Your task to perform on an android device: turn off picture-in-picture Image 0: 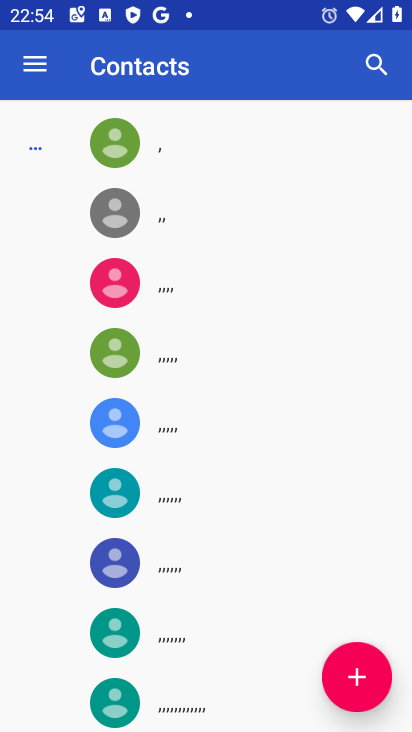
Step 0: press home button
Your task to perform on an android device: turn off picture-in-picture Image 1: 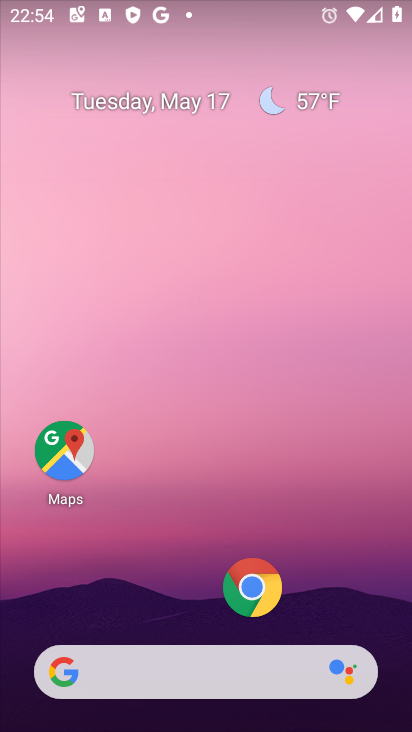
Step 1: drag from (214, 578) to (225, 140)
Your task to perform on an android device: turn off picture-in-picture Image 2: 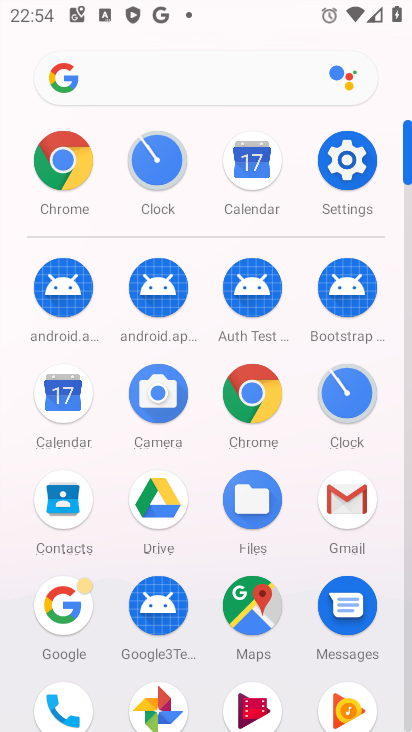
Step 2: click (347, 176)
Your task to perform on an android device: turn off picture-in-picture Image 3: 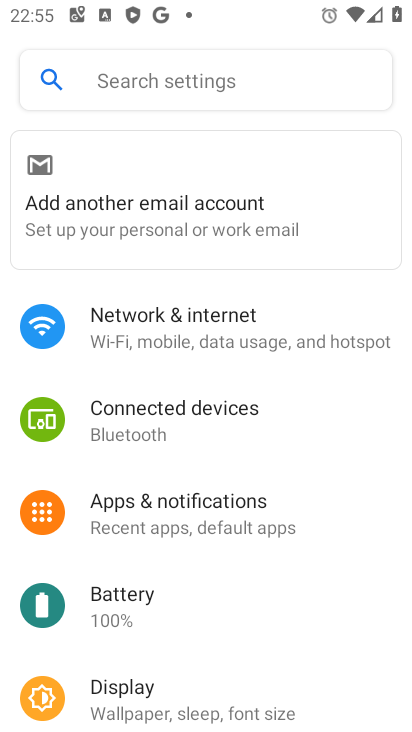
Step 3: click (255, 503)
Your task to perform on an android device: turn off picture-in-picture Image 4: 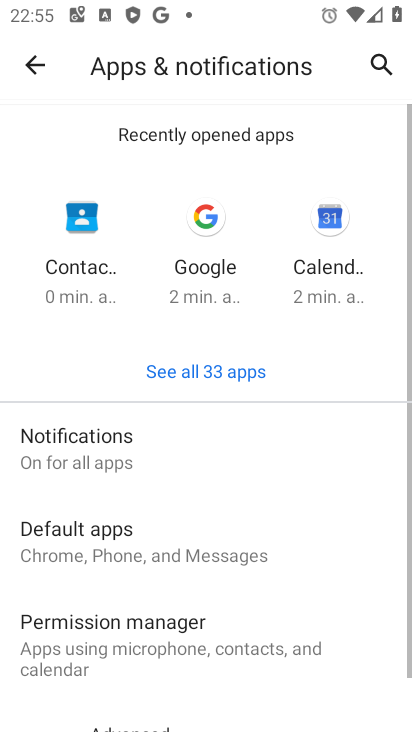
Step 4: drag from (249, 607) to (261, 234)
Your task to perform on an android device: turn off picture-in-picture Image 5: 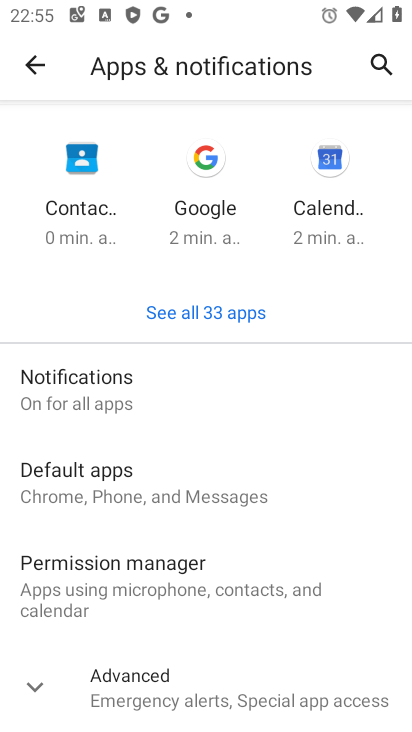
Step 5: click (157, 700)
Your task to perform on an android device: turn off picture-in-picture Image 6: 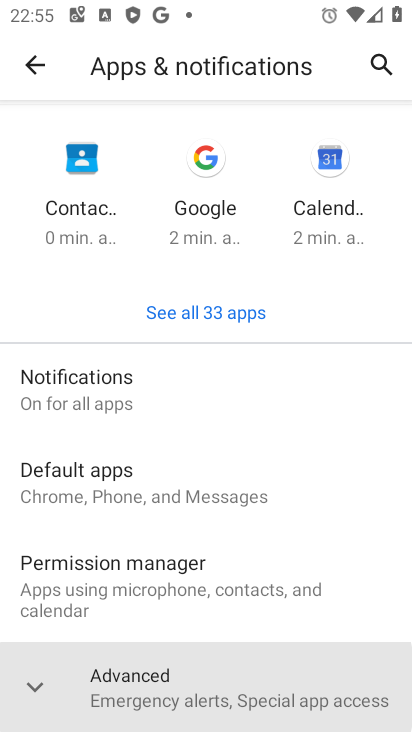
Step 6: drag from (196, 554) to (232, 291)
Your task to perform on an android device: turn off picture-in-picture Image 7: 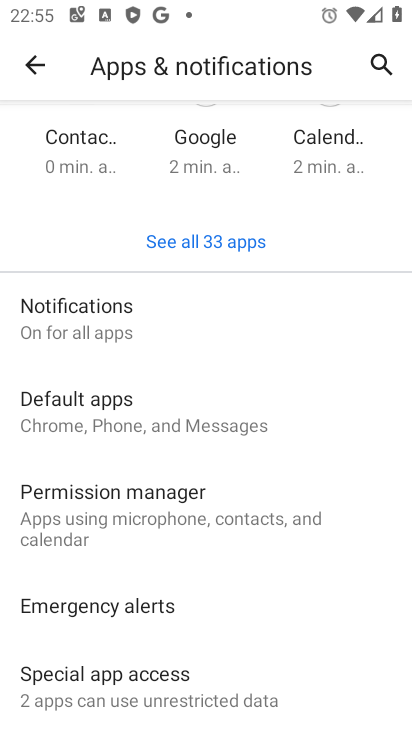
Step 7: click (181, 694)
Your task to perform on an android device: turn off picture-in-picture Image 8: 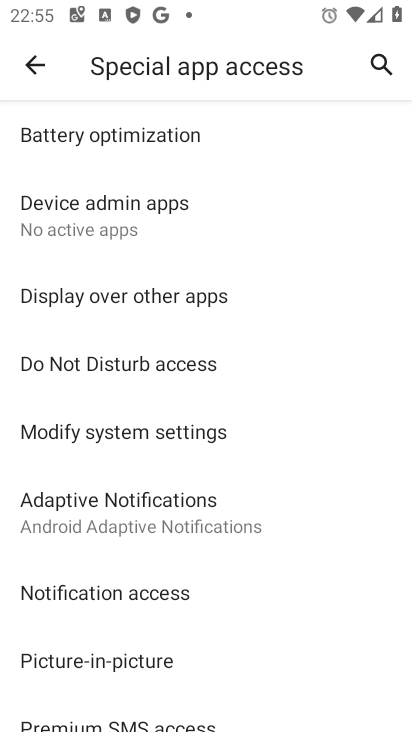
Step 8: click (156, 657)
Your task to perform on an android device: turn off picture-in-picture Image 9: 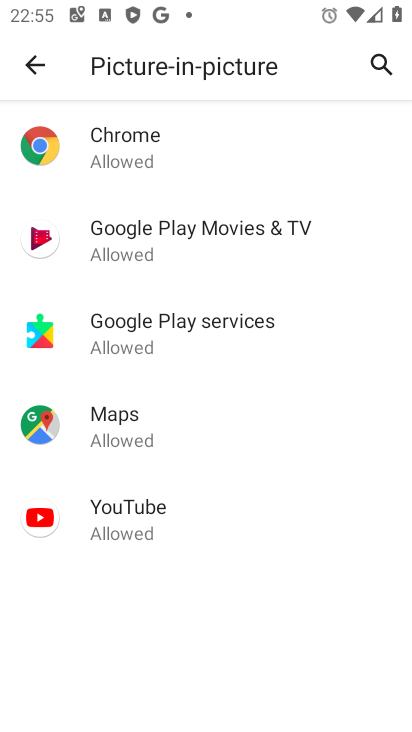
Step 9: click (165, 528)
Your task to perform on an android device: turn off picture-in-picture Image 10: 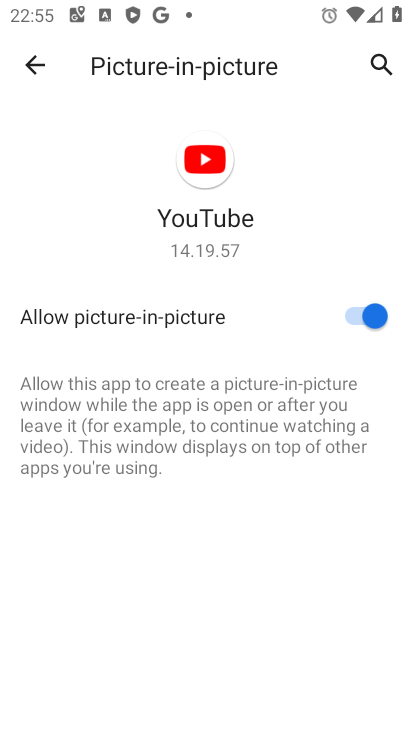
Step 10: click (345, 314)
Your task to perform on an android device: turn off picture-in-picture Image 11: 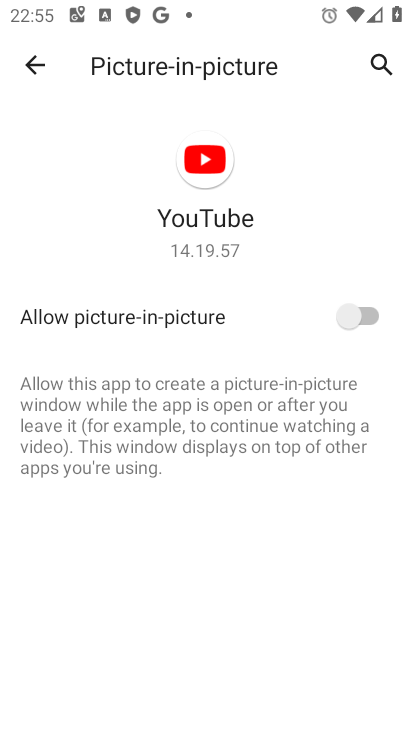
Step 11: task complete